Your task to perform on an android device: Toggle the flashlight Image 0: 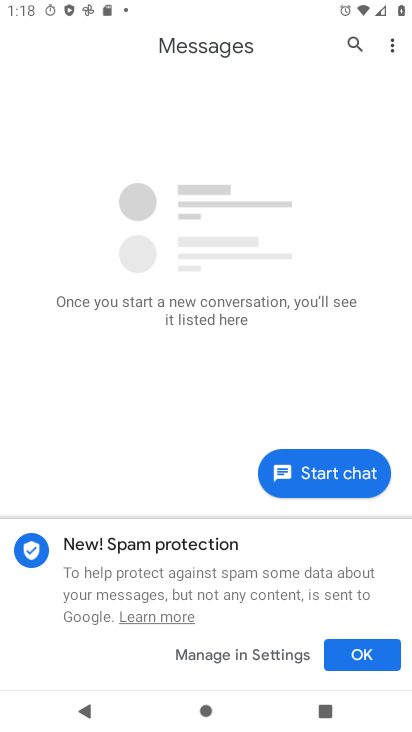
Step 0: press home button
Your task to perform on an android device: Toggle the flashlight Image 1: 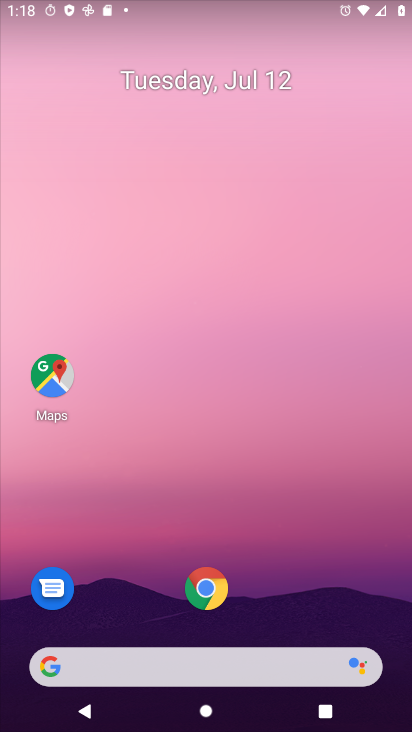
Step 1: task complete